Your task to perform on an android device: turn off translation in the chrome app Image 0: 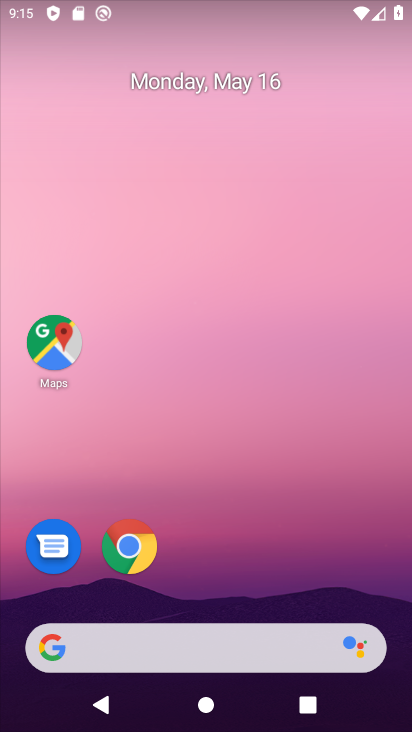
Step 0: click (128, 547)
Your task to perform on an android device: turn off translation in the chrome app Image 1: 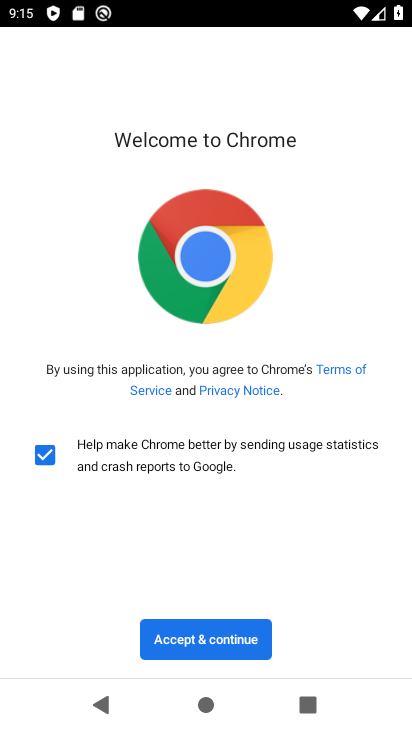
Step 1: click (191, 638)
Your task to perform on an android device: turn off translation in the chrome app Image 2: 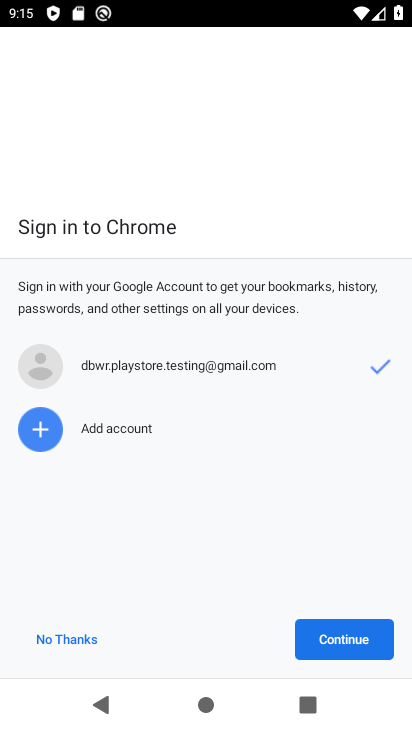
Step 2: click (340, 640)
Your task to perform on an android device: turn off translation in the chrome app Image 3: 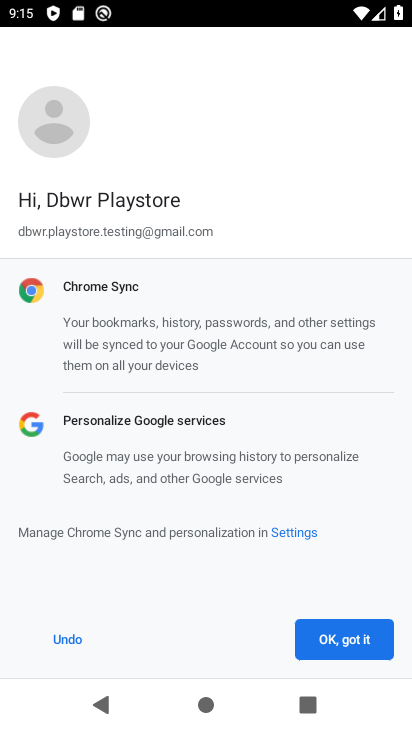
Step 3: click (340, 640)
Your task to perform on an android device: turn off translation in the chrome app Image 4: 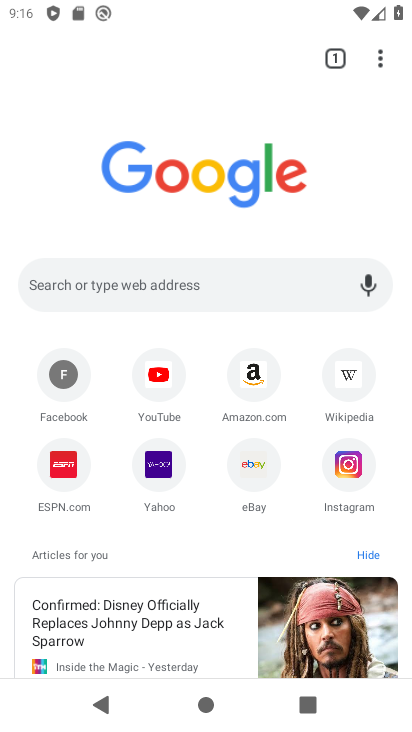
Step 4: click (381, 58)
Your task to perform on an android device: turn off translation in the chrome app Image 5: 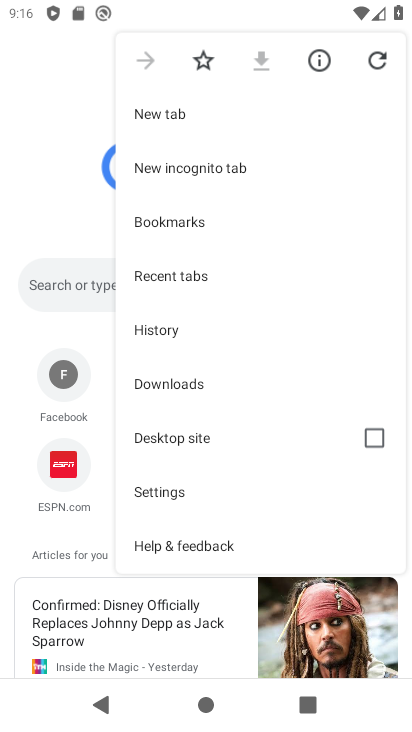
Step 5: click (171, 494)
Your task to perform on an android device: turn off translation in the chrome app Image 6: 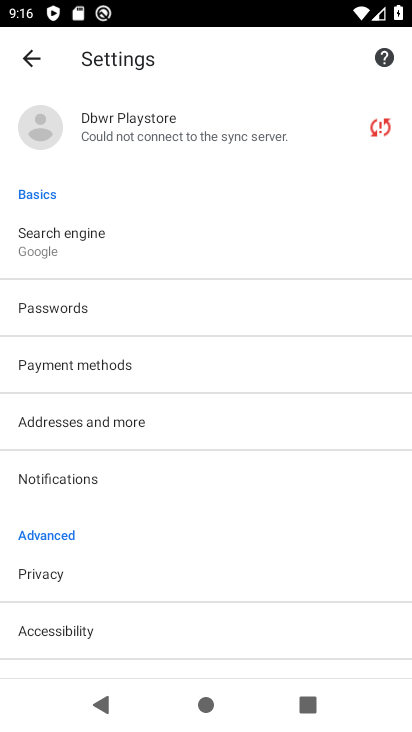
Step 6: drag from (136, 505) to (183, 428)
Your task to perform on an android device: turn off translation in the chrome app Image 7: 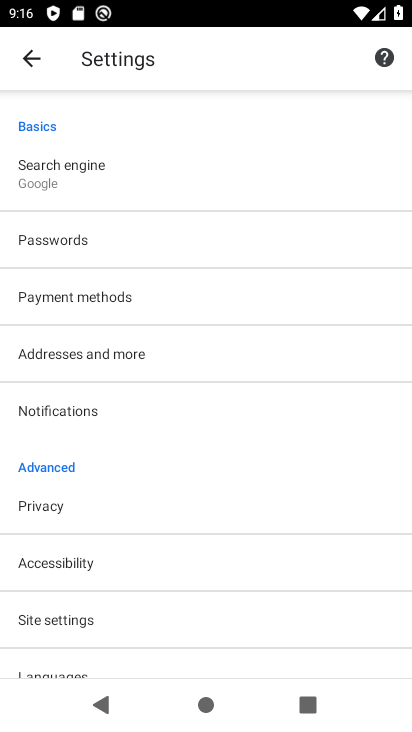
Step 7: drag from (119, 547) to (194, 448)
Your task to perform on an android device: turn off translation in the chrome app Image 8: 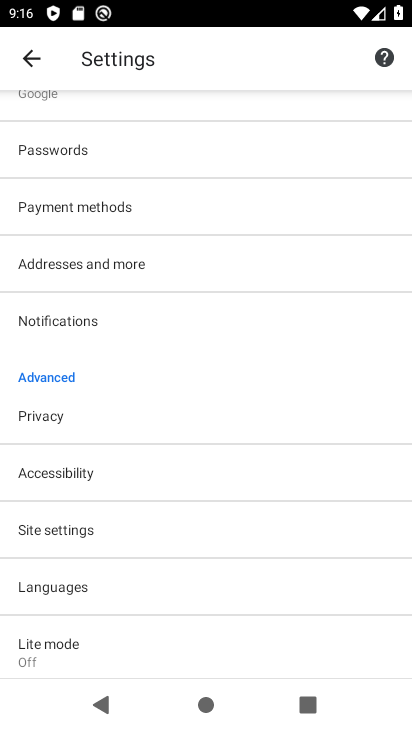
Step 8: click (71, 586)
Your task to perform on an android device: turn off translation in the chrome app Image 9: 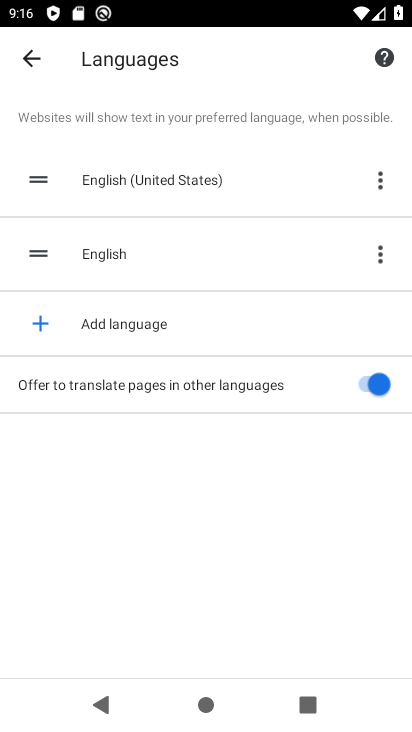
Step 9: click (365, 382)
Your task to perform on an android device: turn off translation in the chrome app Image 10: 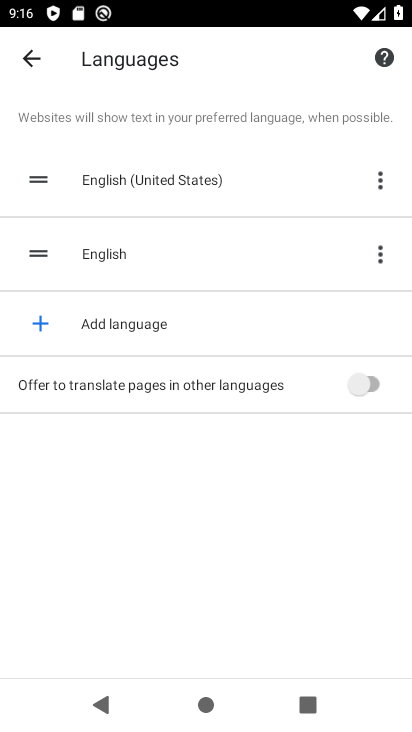
Step 10: task complete